Your task to perform on an android device: Open calendar and show me the second week of next month Image 0: 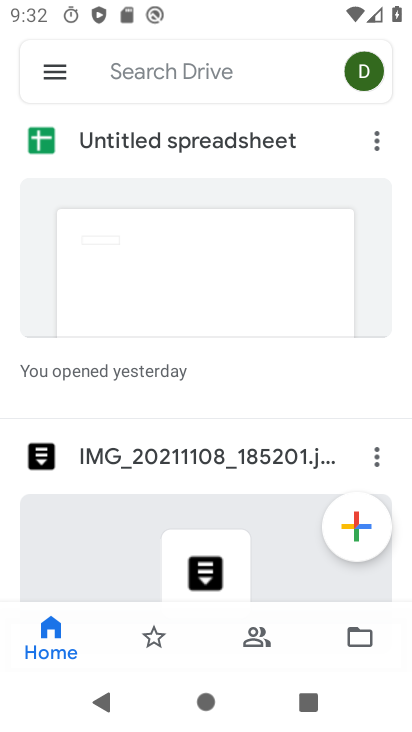
Step 0: press home button
Your task to perform on an android device: Open calendar and show me the second week of next month Image 1: 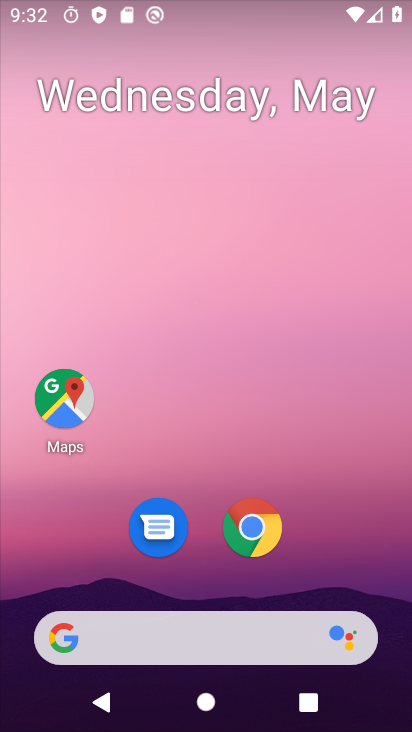
Step 1: drag from (290, 568) to (244, 85)
Your task to perform on an android device: Open calendar and show me the second week of next month Image 2: 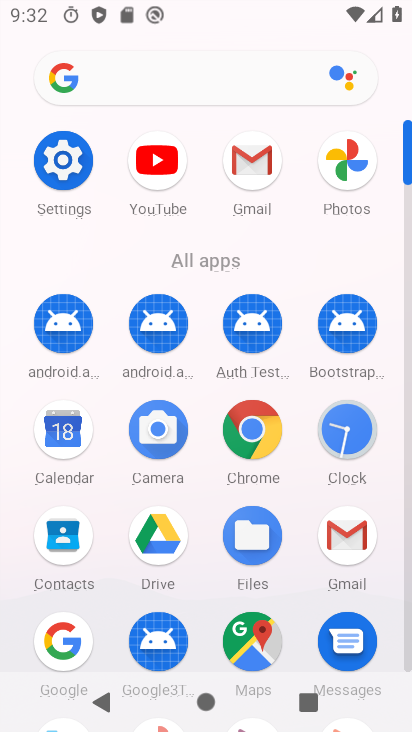
Step 2: click (58, 448)
Your task to perform on an android device: Open calendar and show me the second week of next month Image 3: 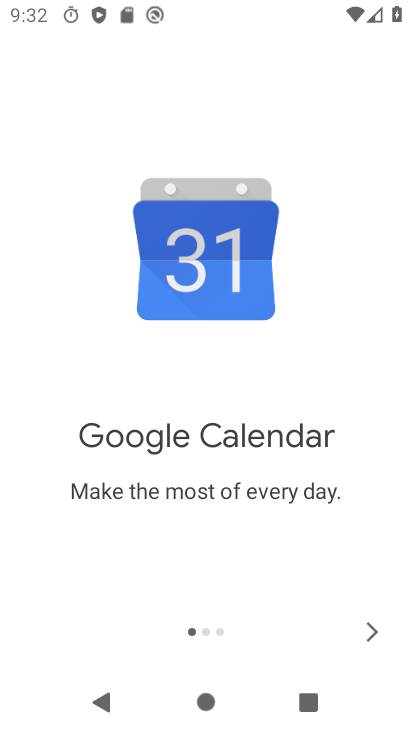
Step 3: click (376, 631)
Your task to perform on an android device: Open calendar and show me the second week of next month Image 4: 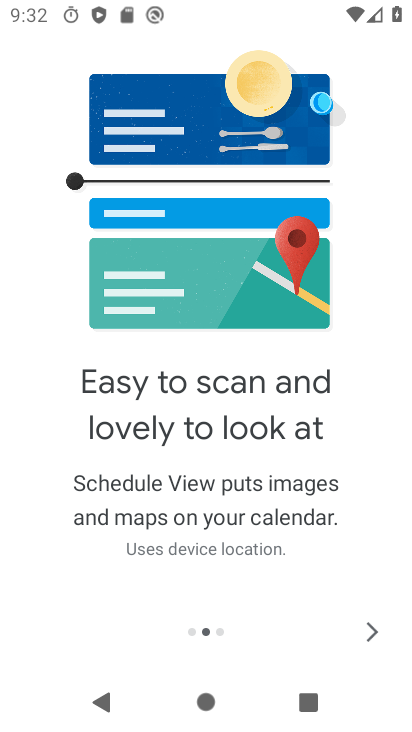
Step 4: click (376, 631)
Your task to perform on an android device: Open calendar and show me the second week of next month Image 5: 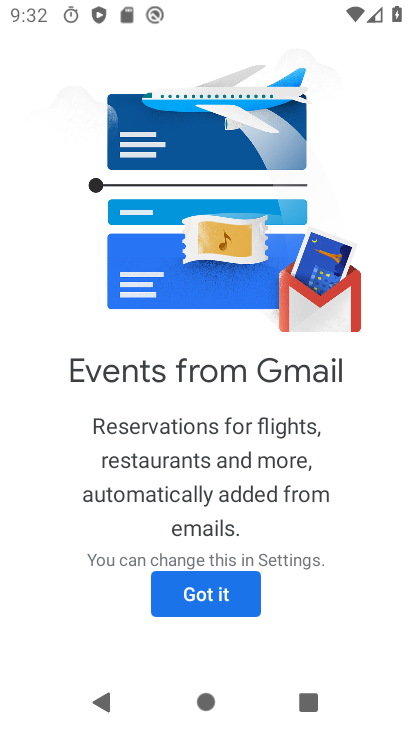
Step 5: click (228, 596)
Your task to perform on an android device: Open calendar and show me the second week of next month Image 6: 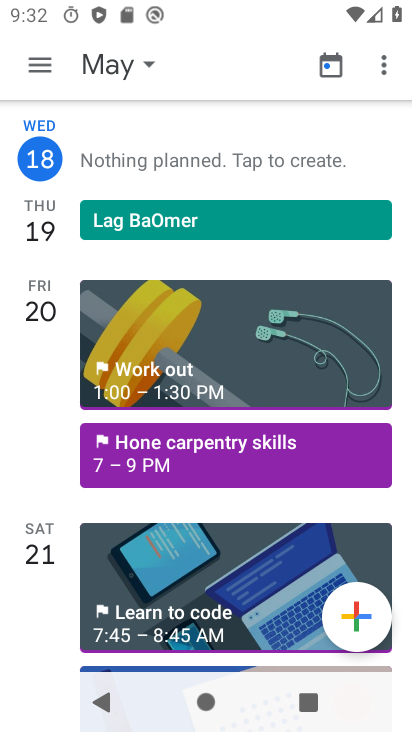
Step 6: click (130, 67)
Your task to perform on an android device: Open calendar and show me the second week of next month Image 7: 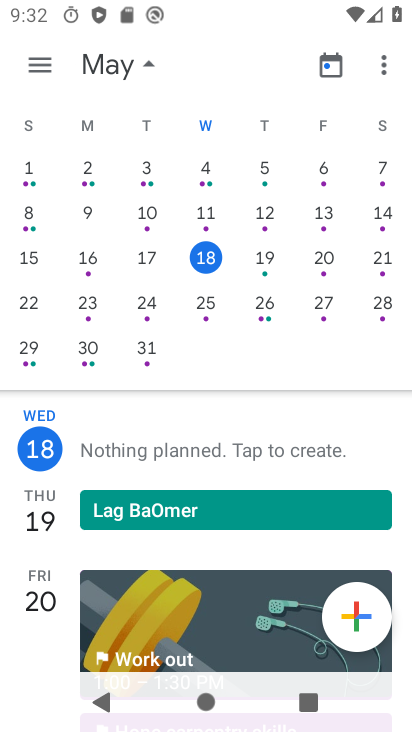
Step 7: drag from (356, 206) to (15, 187)
Your task to perform on an android device: Open calendar and show me the second week of next month Image 8: 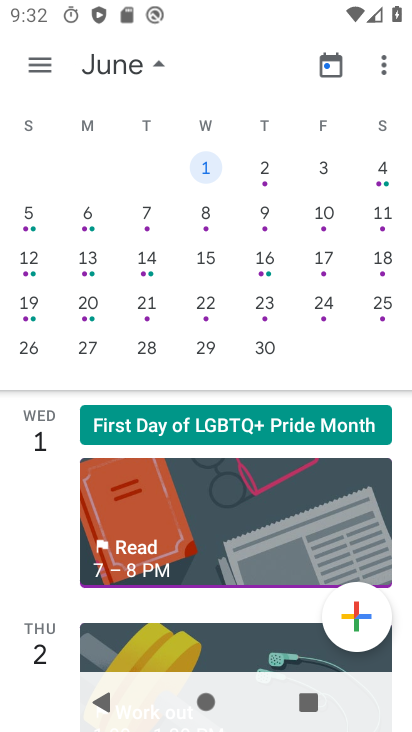
Step 8: click (377, 215)
Your task to perform on an android device: Open calendar and show me the second week of next month Image 9: 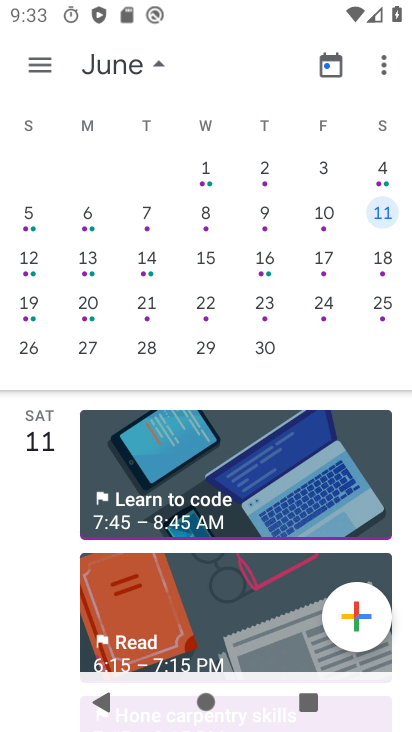
Step 9: task complete